Your task to perform on an android device: Open settings on Google Maps Image 0: 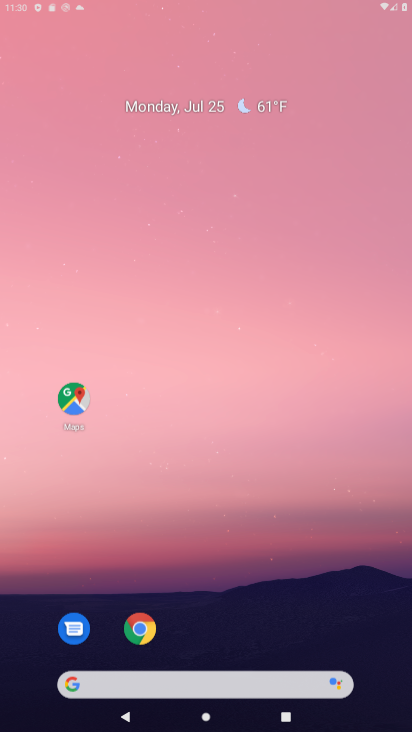
Step 0: drag from (233, 525) to (289, 24)
Your task to perform on an android device: Open settings on Google Maps Image 1: 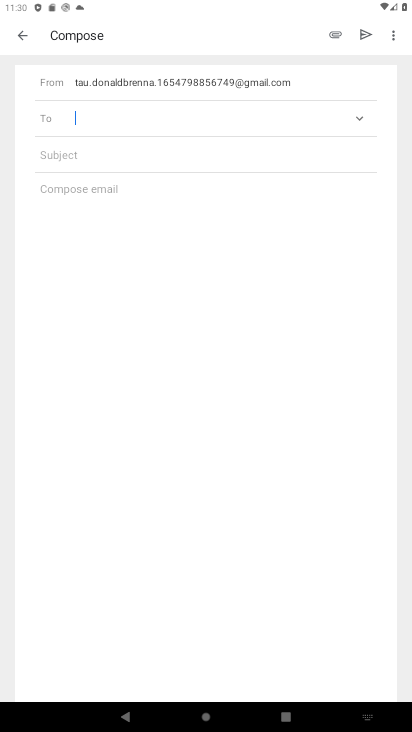
Step 1: press home button
Your task to perform on an android device: Open settings on Google Maps Image 2: 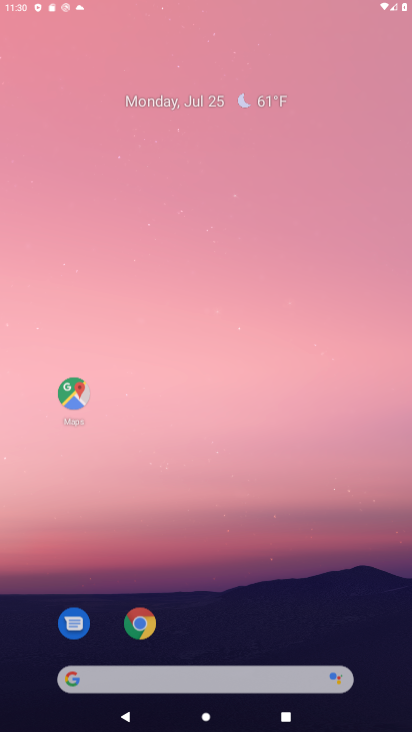
Step 2: drag from (212, 621) to (204, 0)
Your task to perform on an android device: Open settings on Google Maps Image 3: 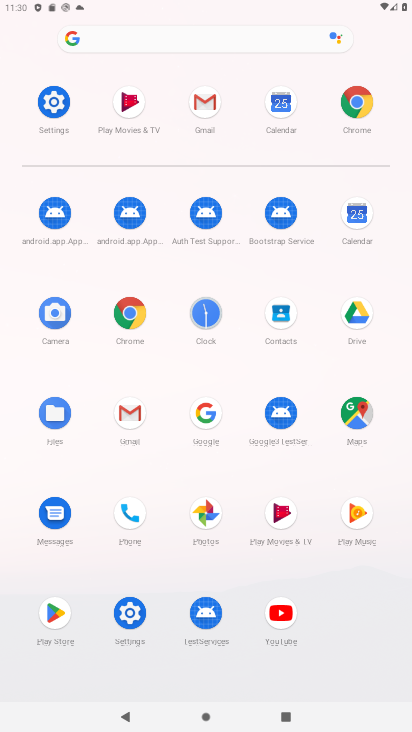
Step 3: click (360, 415)
Your task to perform on an android device: Open settings on Google Maps Image 4: 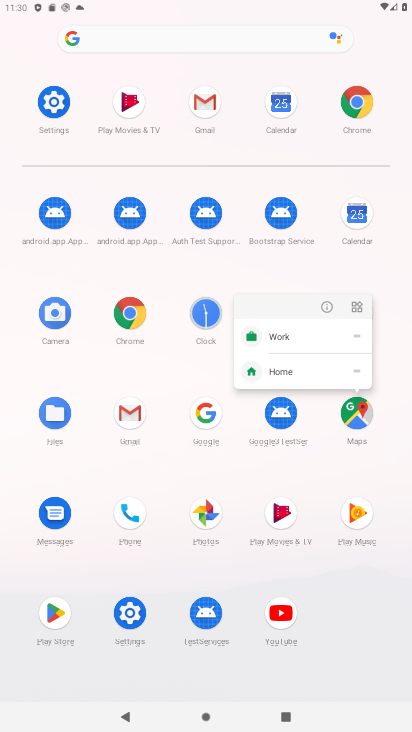
Step 4: click (320, 305)
Your task to perform on an android device: Open settings on Google Maps Image 5: 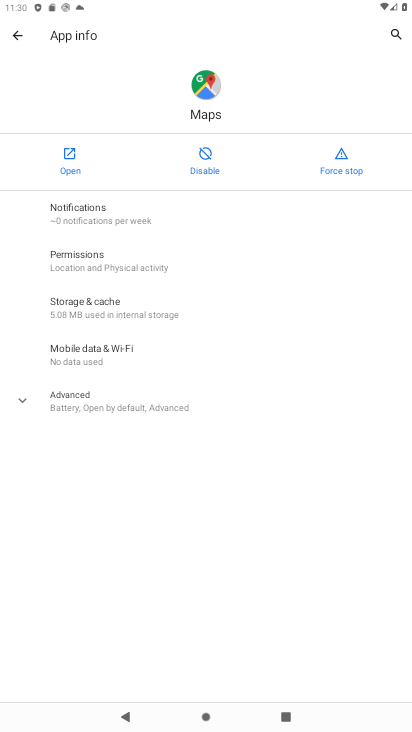
Step 5: click (75, 168)
Your task to perform on an android device: Open settings on Google Maps Image 6: 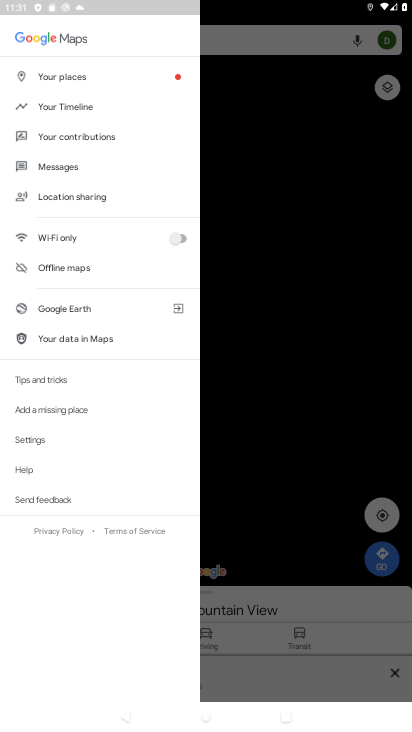
Step 6: click (56, 439)
Your task to perform on an android device: Open settings on Google Maps Image 7: 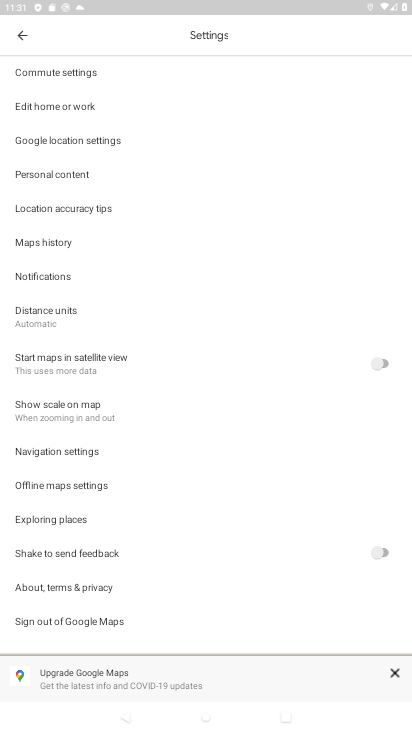
Step 7: task complete